Your task to perform on an android device: star an email in the gmail app Image 0: 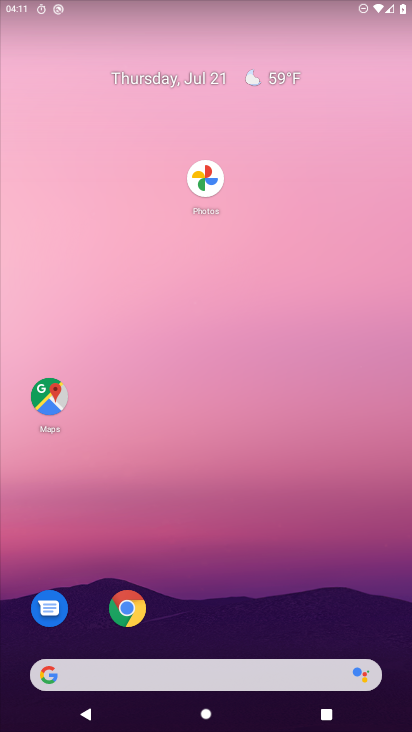
Step 0: drag from (231, 621) to (256, 71)
Your task to perform on an android device: star an email in the gmail app Image 1: 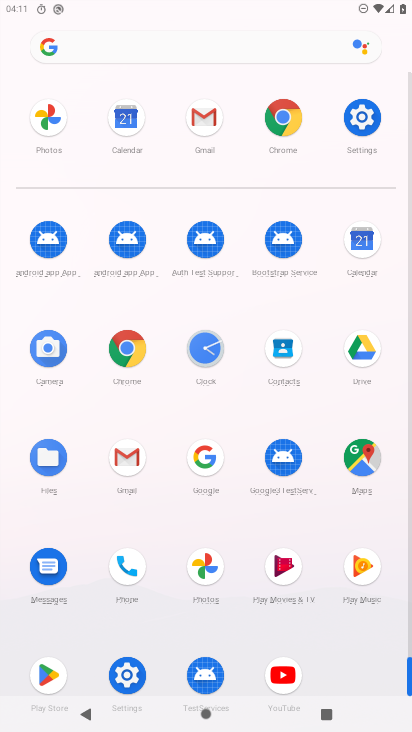
Step 1: click (201, 108)
Your task to perform on an android device: star an email in the gmail app Image 2: 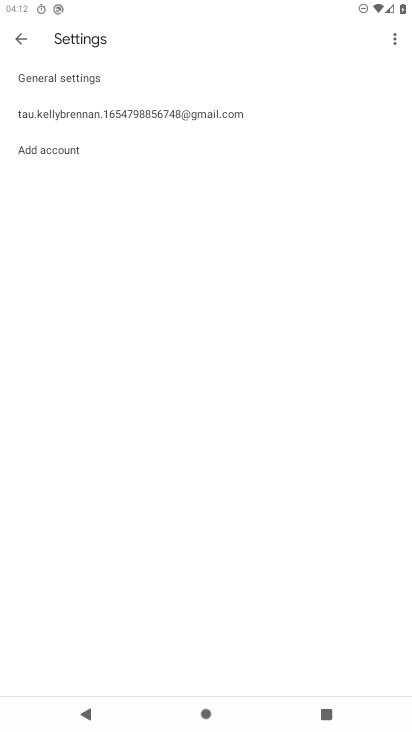
Step 2: click (20, 41)
Your task to perform on an android device: star an email in the gmail app Image 3: 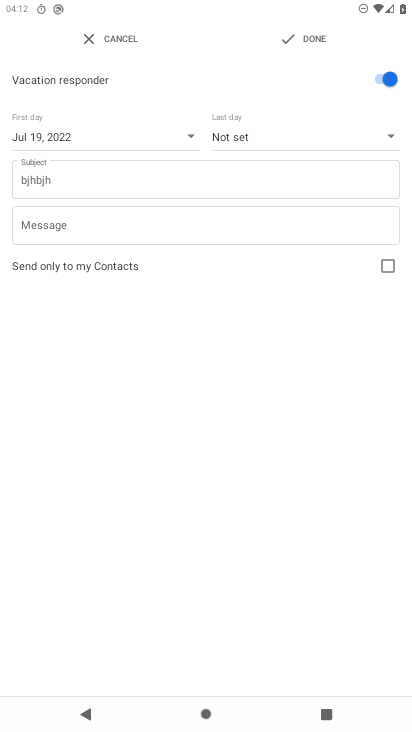
Step 3: press back button
Your task to perform on an android device: star an email in the gmail app Image 4: 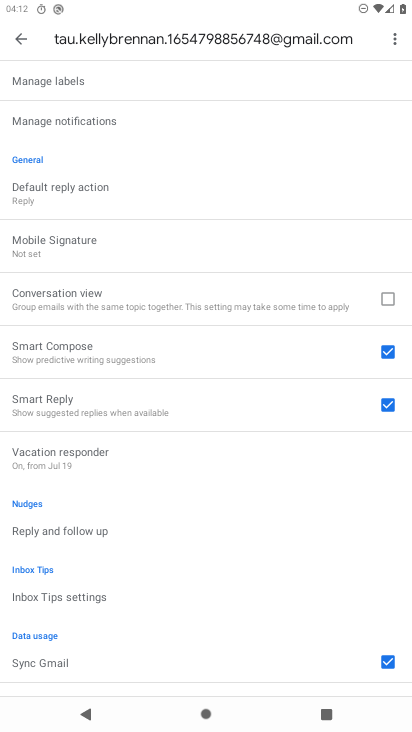
Step 4: press back button
Your task to perform on an android device: star an email in the gmail app Image 5: 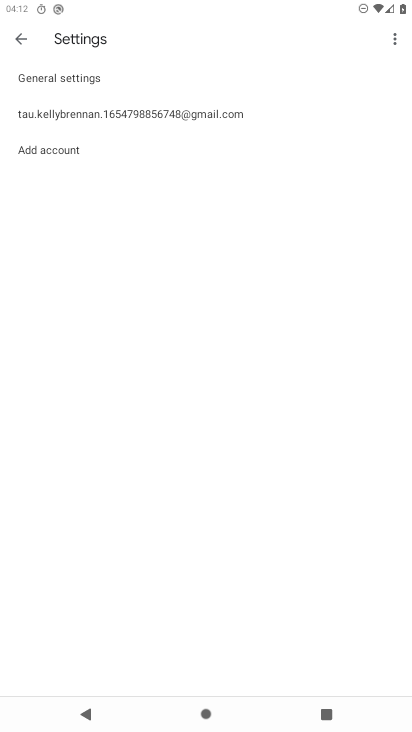
Step 5: press back button
Your task to perform on an android device: star an email in the gmail app Image 6: 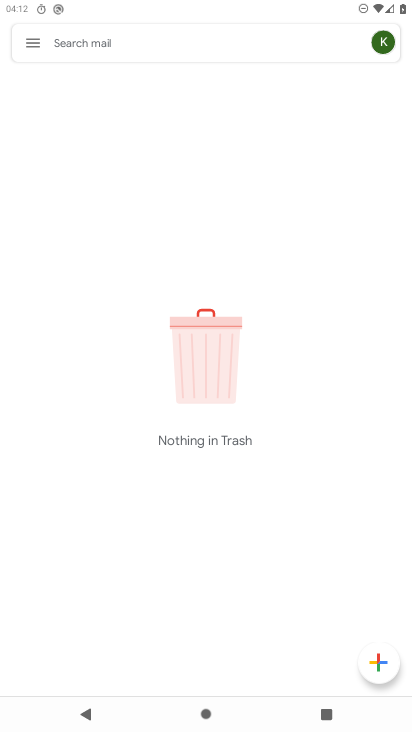
Step 6: click (32, 43)
Your task to perform on an android device: star an email in the gmail app Image 7: 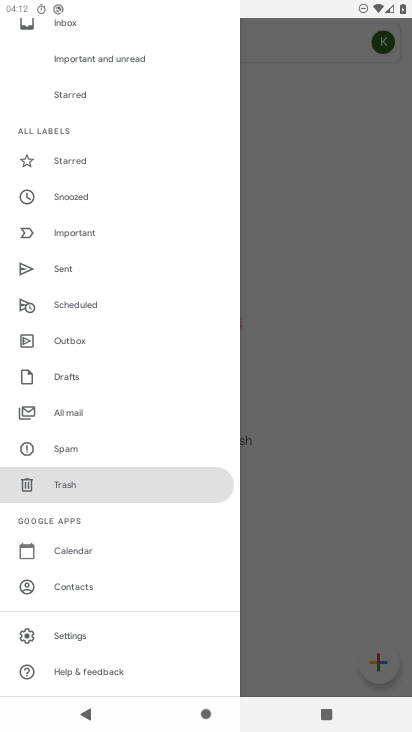
Step 7: click (63, 402)
Your task to perform on an android device: star an email in the gmail app Image 8: 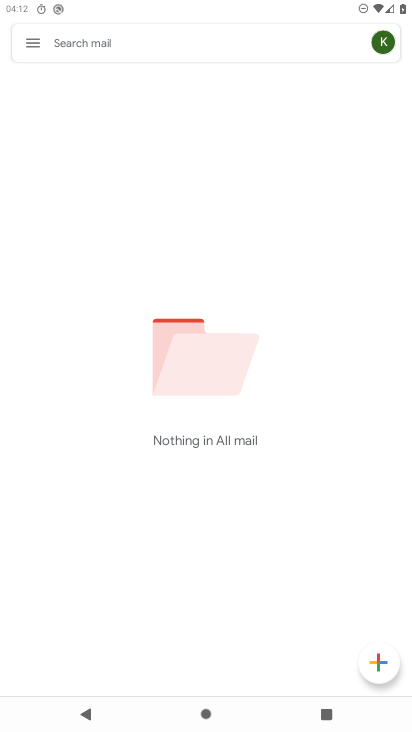
Step 8: task complete